Your task to perform on an android device: turn on javascript in the chrome app Image 0: 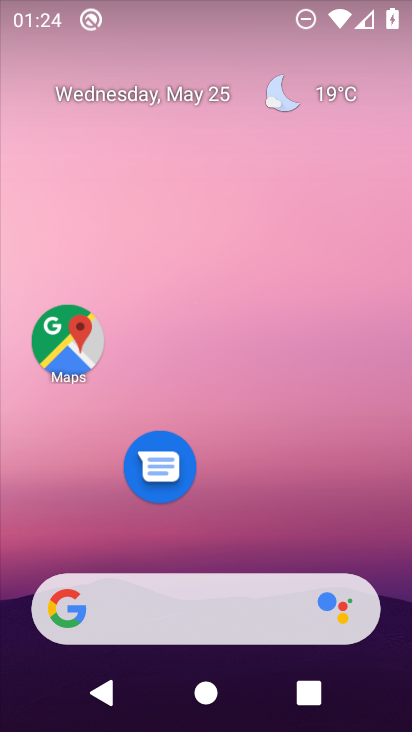
Step 0: drag from (218, 547) to (301, 82)
Your task to perform on an android device: turn on javascript in the chrome app Image 1: 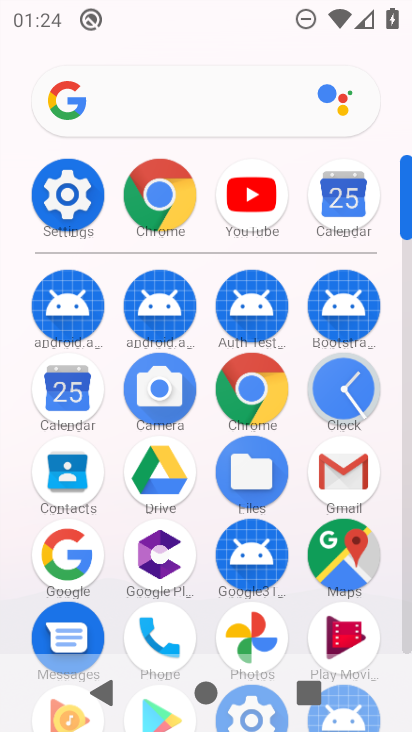
Step 1: click (244, 390)
Your task to perform on an android device: turn on javascript in the chrome app Image 2: 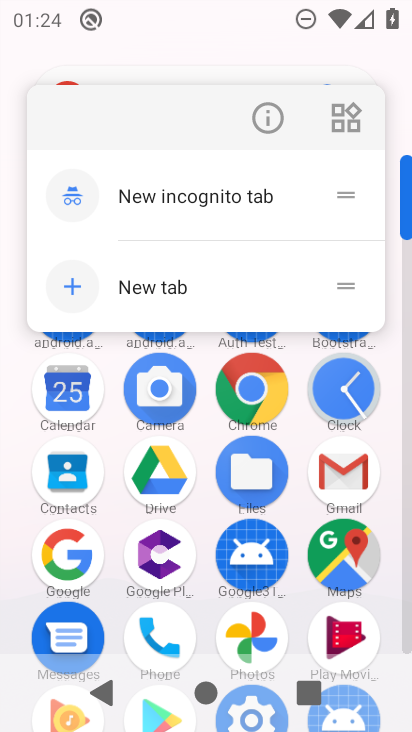
Step 2: click (268, 117)
Your task to perform on an android device: turn on javascript in the chrome app Image 3: 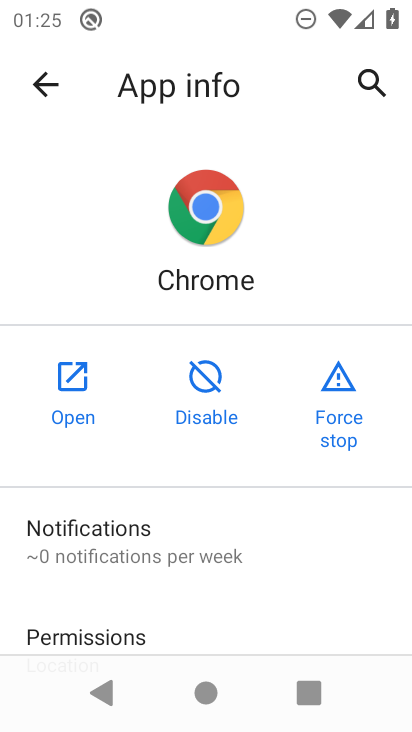
Step 3: click (74, 370)
Your task to perform on an android device: turn on javascript in the chrome app Image 4: 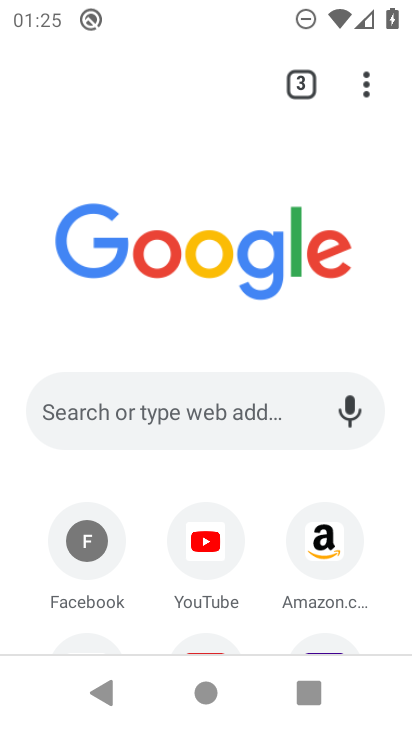
Step 4: click (372, 87)
Your task to perform on an android device: turn on javascript in the chrome app Image 5: 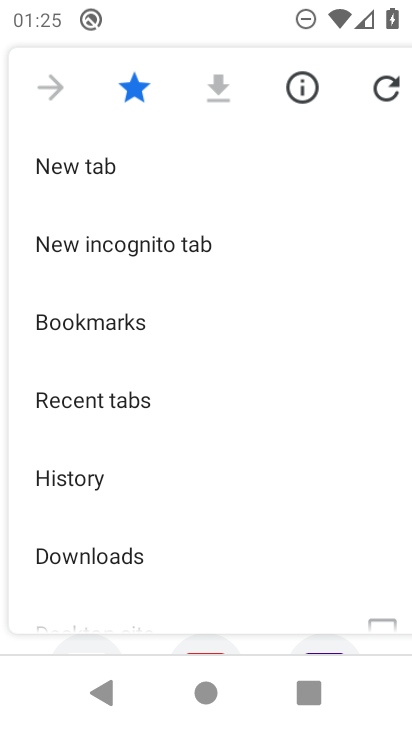
Step 5: drag from (208, 582) to (267, 99)
Your task to perform on an android device: turn on javascript in the chrome app Image 6: 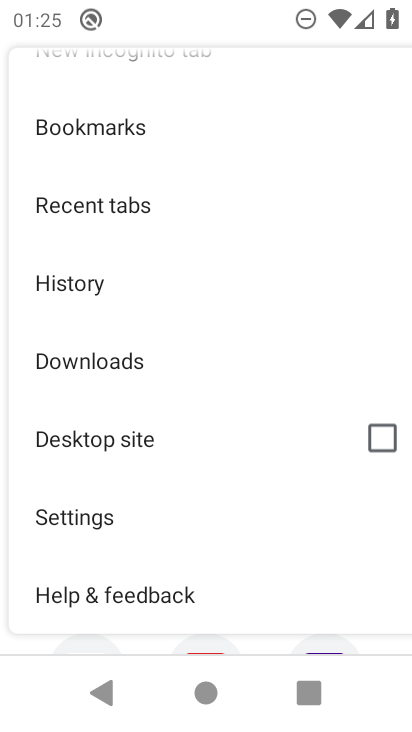
Step 6: click (103, 509)
Your task to perform on an android device: turn on javascript in the chrome app Image 7: 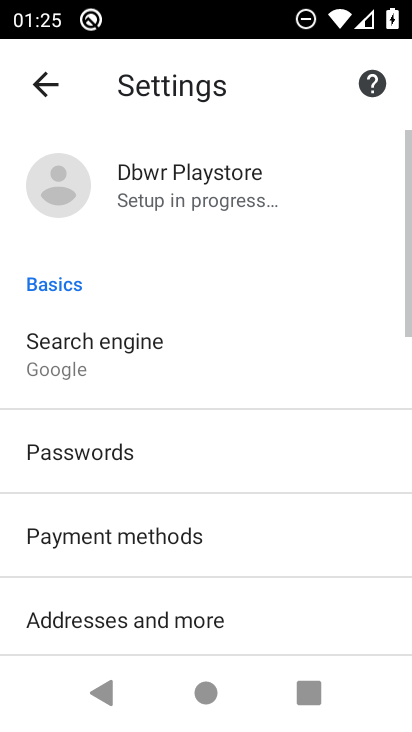
Step 7: drag from (151, 533) to (230, 76)
Your task to perform on an android device: turn on javascript in the chrome app Image 8: 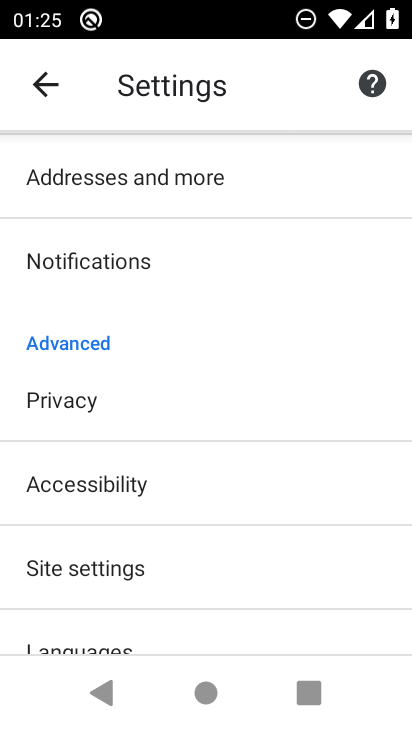
Step 8: drag from (159, 559) to (204, 267)
Your task to perform on an android device: turn on javascript in the chrome app Image 9: 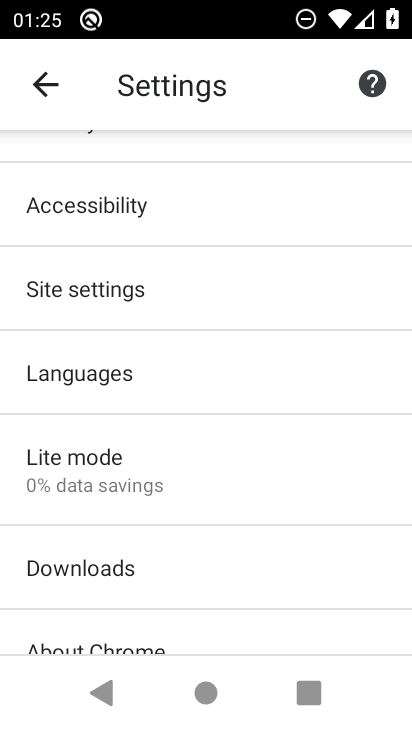
Step 9: click (163, 298)
Your task to perform on an android device: turn on javascript in the chrome app Image 10: 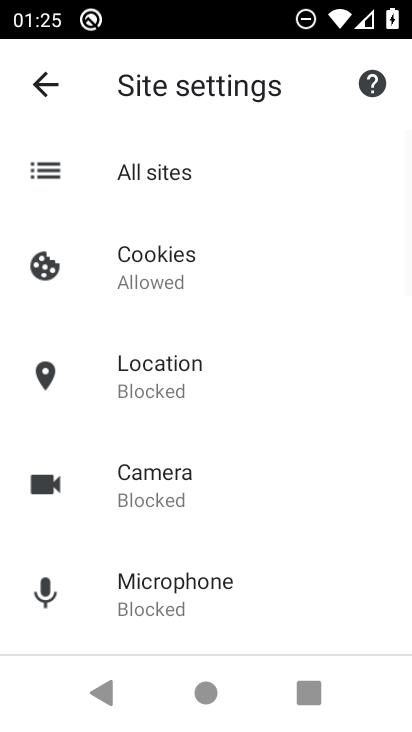
Step 10: drag from (224, 552) to (298, 186)
Your task to perform on an android device: turn on javascript in the chrome app Image 11: 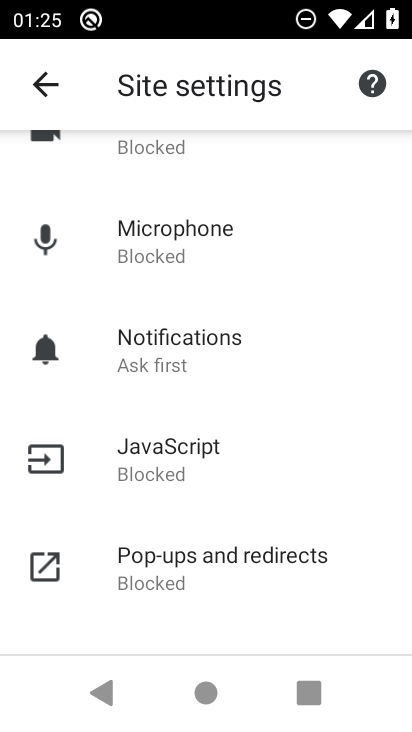
Step 11: click (186, 447)
Your task to perform on an android device: turn on javascript in the chrome app Image 12: 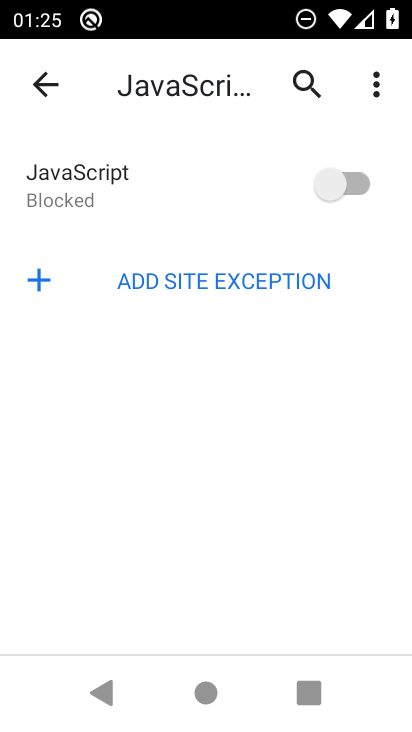
Step 12: click (353, 157)
Your task to perform on an android device: turn on javascript in the chrome app Image 13: 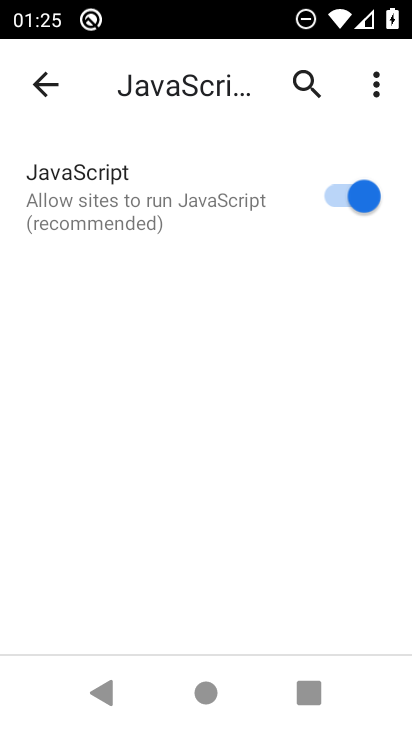
Step 13: task complete